Your task to perform on an android device: turn off picture-in-picture Image 0: 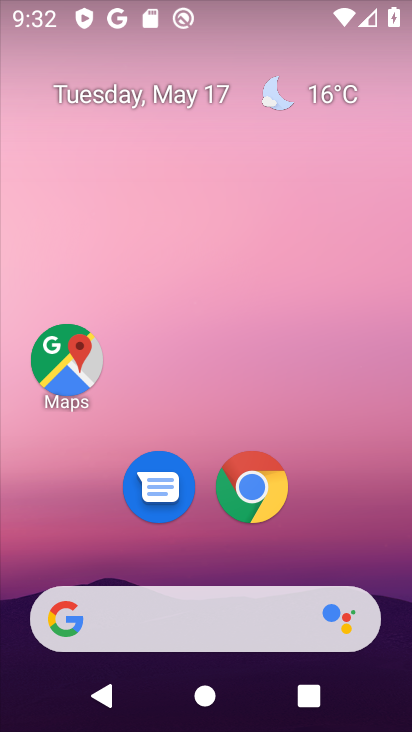
Step 0: click (262, 489)
Your task to perform on an android device: turn off picture-in-picture Image 1: 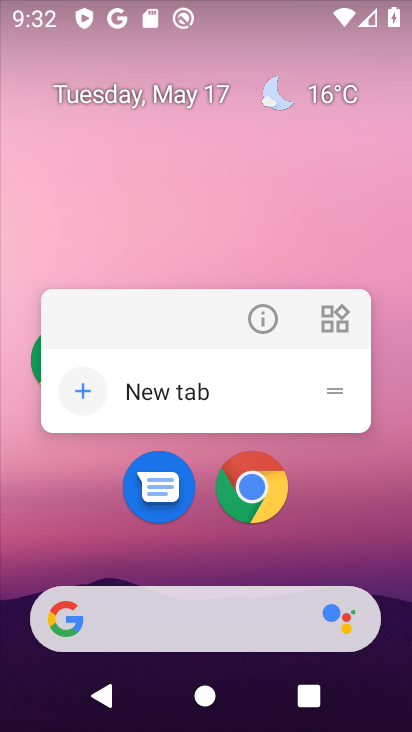
Step 1: click (264, 312)
Your task to perform on an android device: turn off picture-in-picture Image 2: 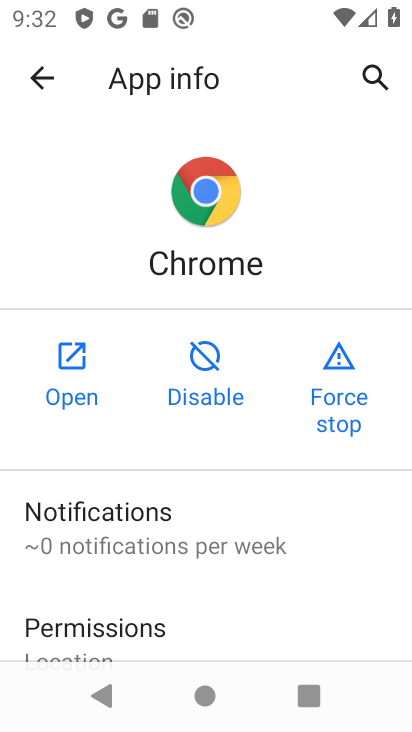
Step 2: drag from (273, 611) to (261, 281)
Your task to perform on an android device: turn off picture-in-picture Image 3: 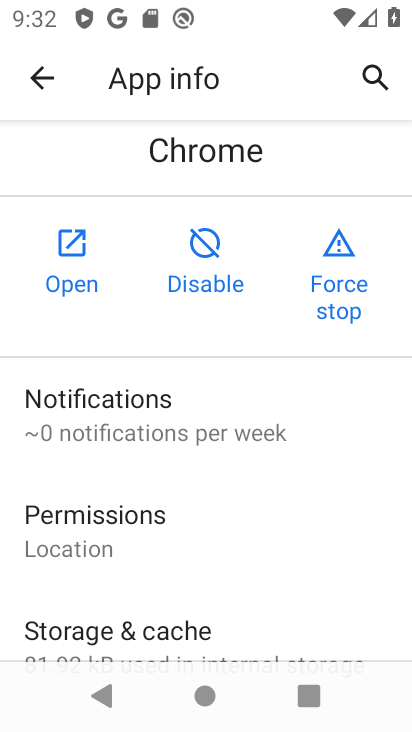
Step 3: drag from (277, 618) to (271, 321)
Your task to perform on an android device: turn off picture-in-picture Image 4: 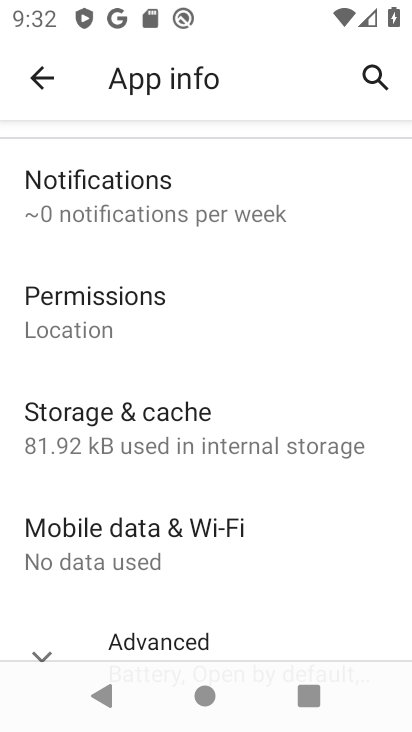
Step 4: drag from (270, 549) to (257, 387)
Your task to perform on an android device: turn off picture-in-picture Image 5: 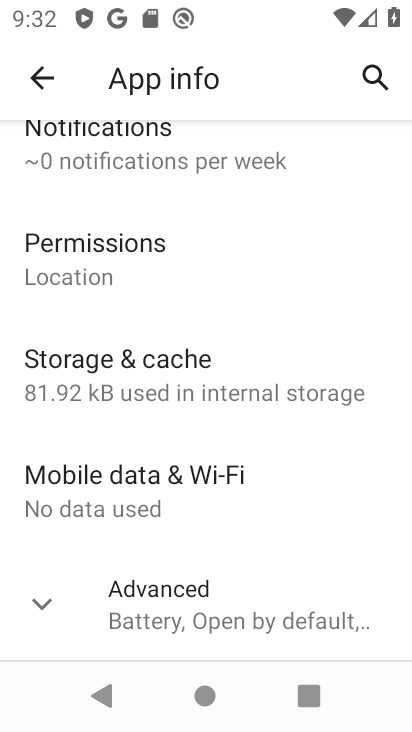
Step 5: drag from (306, 573) to (316, 327)
Your task to perform on an android device: turn off picture-in-picture Image 6: 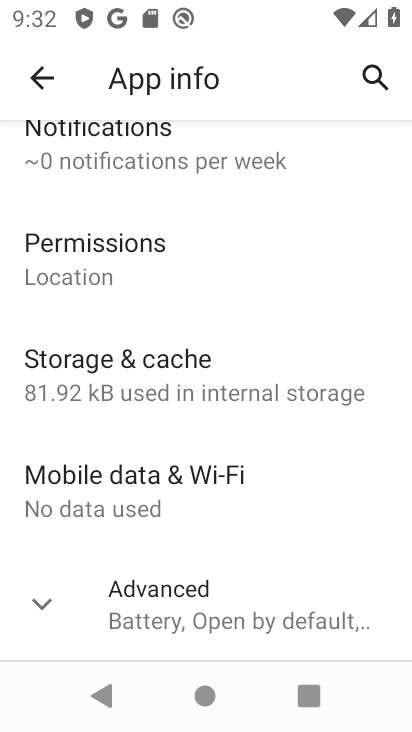
Step 6: click (42, 596)
Your task to perform on an android device: turn off picture-in-picture Image 7: 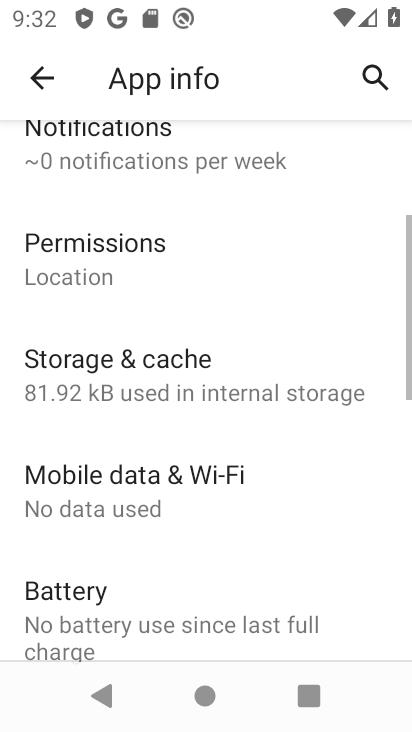
Step 7: drag from (310, 580) to (326, 284)
Your task to perform on an android device: turn off picture-in-picture Image 8: 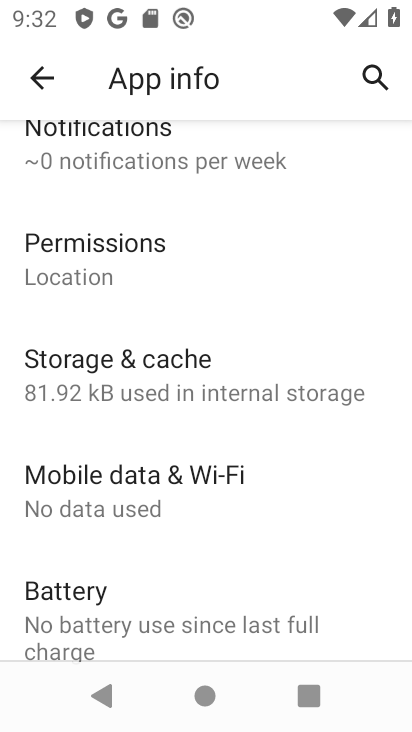
Step 8: drag from (327, 573) to (321, 346)
Your task to perform on an android device: turn off picture-in-picture Image 9: 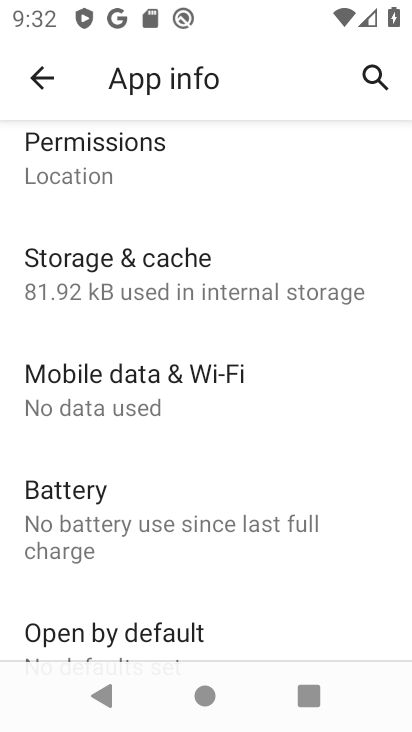
Step 9: drag from (348, 591) to (365, 261)
Your task to perform on an android device: turn off picture-in-picture Image 10: 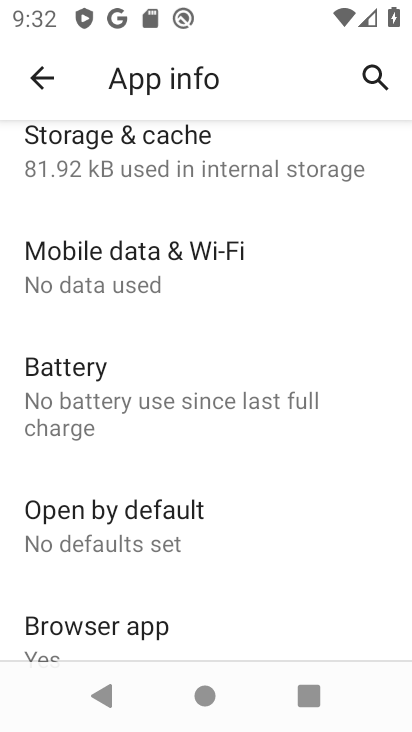
Step 10: drag from (336, 567) to (312, 227)
Your task to perform on an android device: turn off picture-in-picture Image 11: 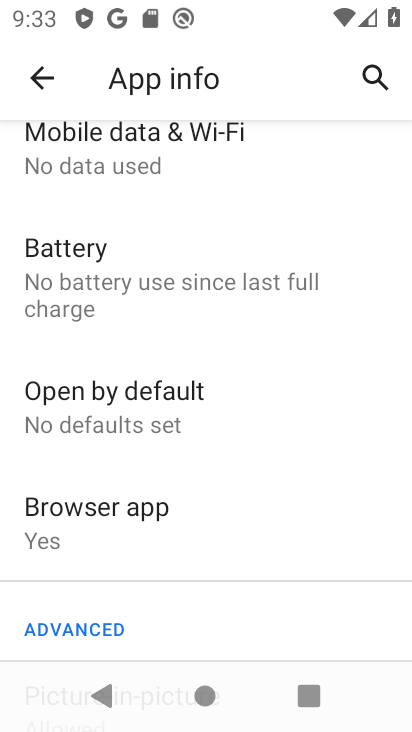
Step 11: drag from (255, 565) to (286, 185)
Your task to perform on an android device: turn off picture-in-picture Image 12: 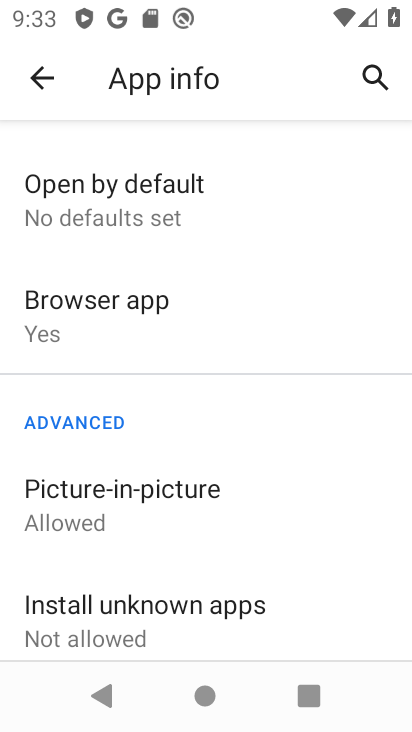
Step 12: click (102, 503)
Your task to perform on an android device: turn off picture-in-picture Image 13: 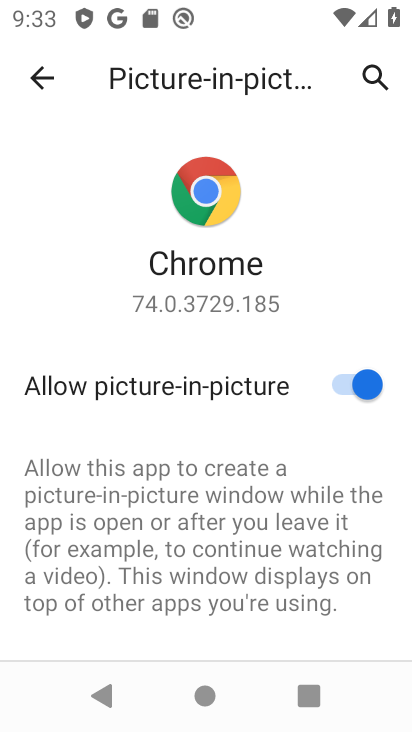
Step 13: click (338, 382)
Your task to perform on an android device: turn off picture-in-picture Image 14: 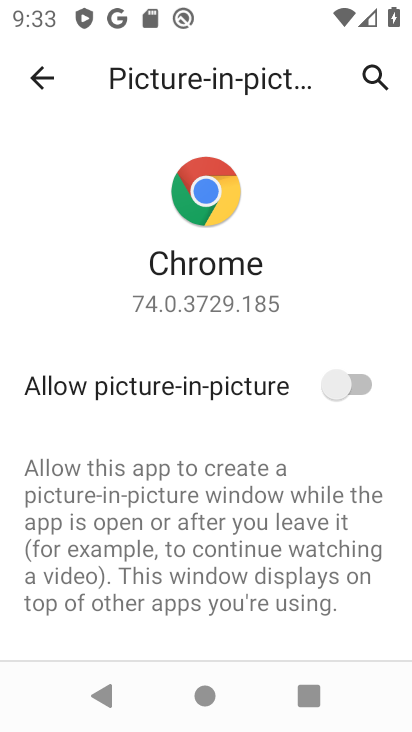
Step 14: task complete